Your task to perform on an android device: open app "Fetch Rewards" Image 0: 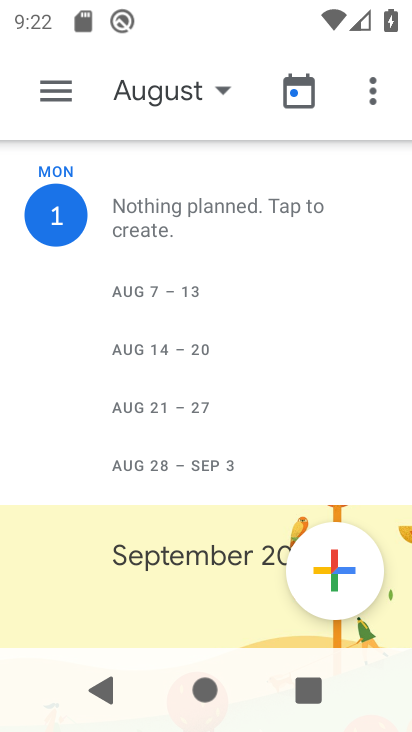
Step 0: press home button
Your task to perform on an android device: open app "Fetch Rewards" Image 1: 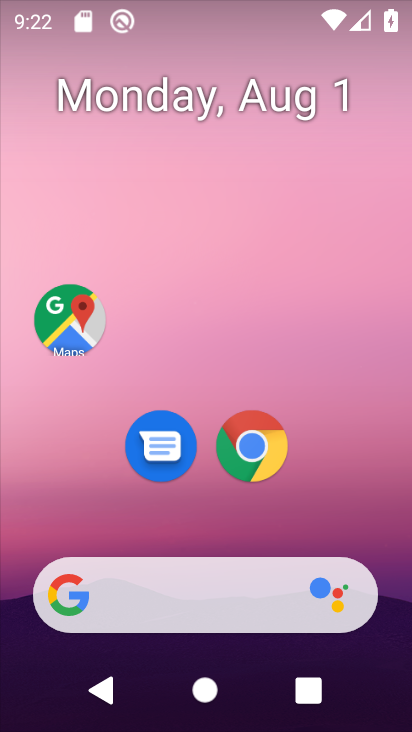
Step 1: drag from (230, 518) to (238, 105)
Your task to perform on an android device: open app "Fetch Rewards" Image 2: 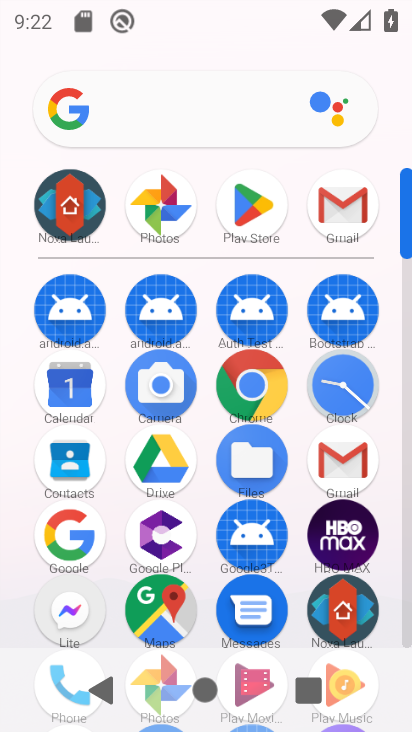
Step 2: click (267, 205)
Your task to perform on an android device: open app "Fetch Rewards" Image 3: 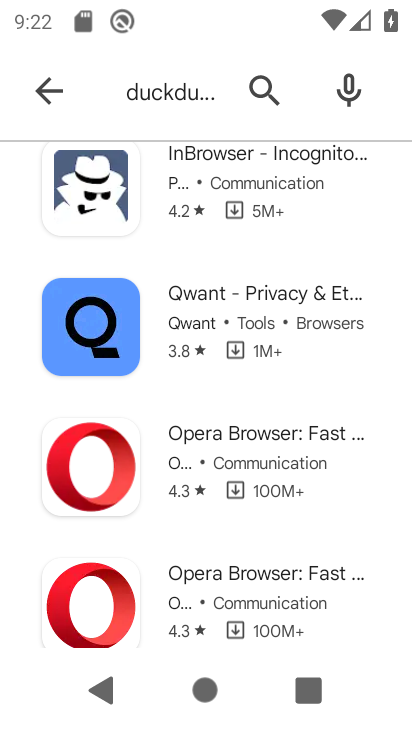
Step 3: click (273, 74)
Your task to perform on an android device: open app "Fetch Rewards" Image 4: 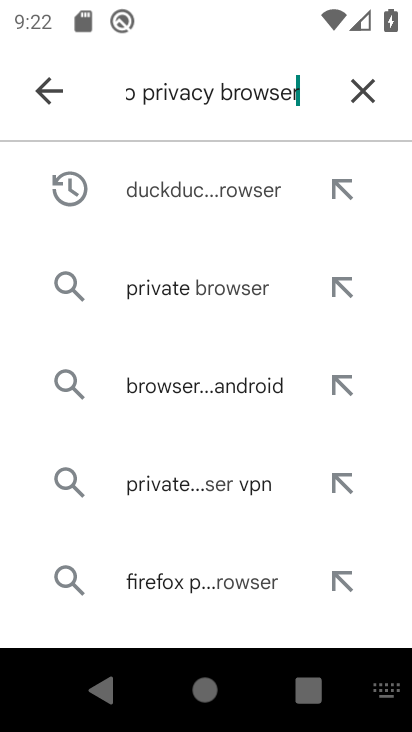
Step 4: type "Fetch Rewards"
Your task to perform on an android device: open app "Fetch Rewards" Image 5: 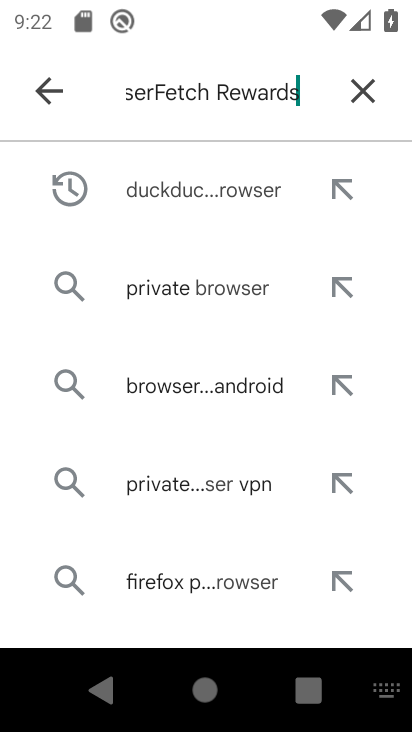
Step 5: type ""
Your task to perform on an android device: open app "Fetch Rewards" Image 6: 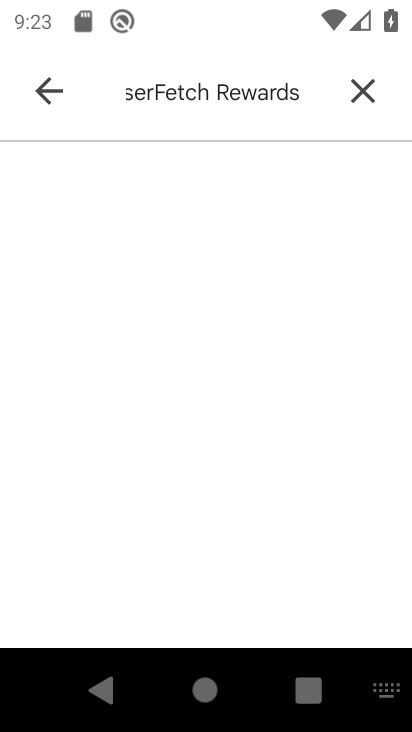
Step 6: click (362, 94)
Your task to perform on an android device: open app "Fetch Rewards" Image 7: 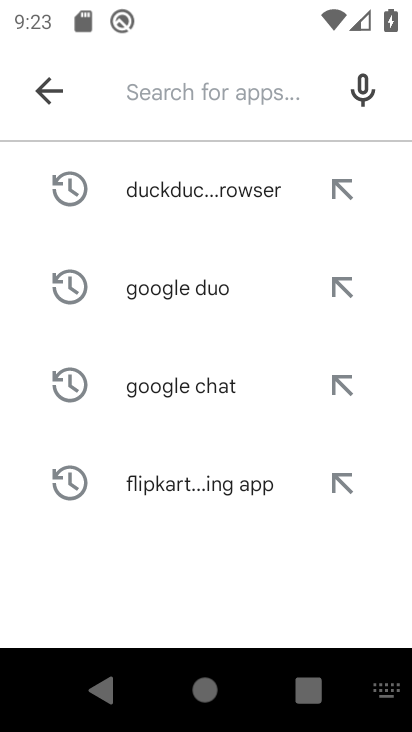
Step 7: type "Fetch Rewards""
Your task to perform on an android device: open app "Fetch Rewards" Image 8: 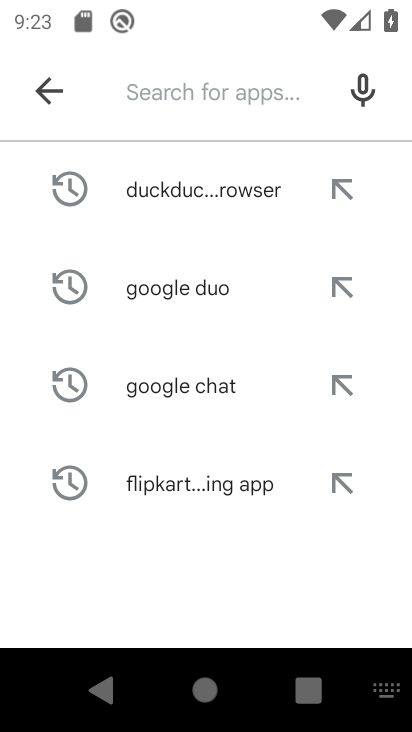
Step 8: type ""
Your task to perform on an android device: open app "Fetch Rewards" Image 9: 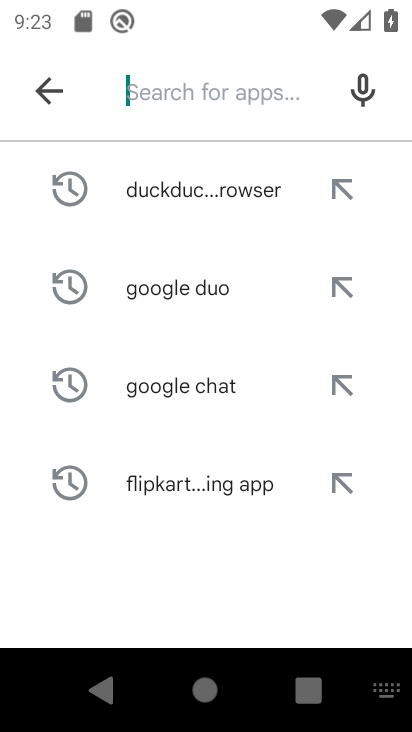
Step 9: type "Fetch Rewards"
Your task to perform on an android device: open app "Fetch Rewards" Image 10: 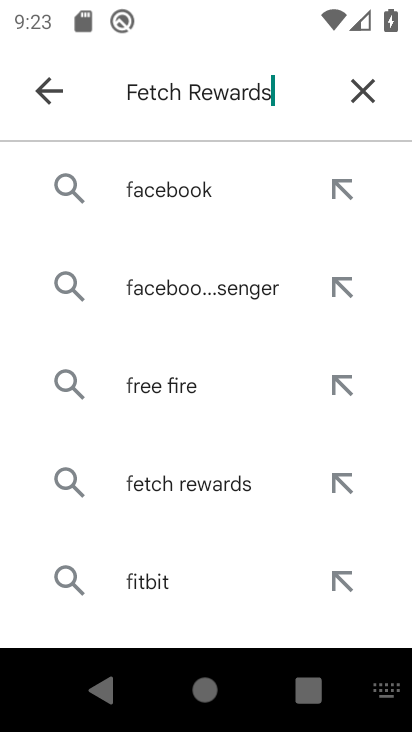
Step 10: type ""
Your task to perform on an android device: open app "Fetch Rewards" Image 11: 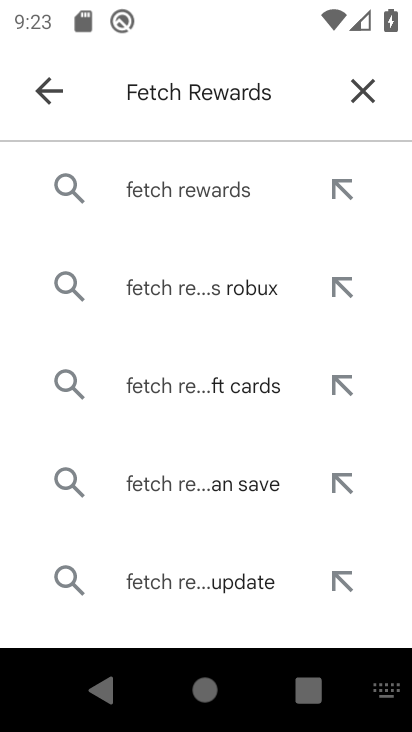
Step 11: click (194, 178)
Your task to perform on an android device: open app "Fetch Rewards" Image 12: 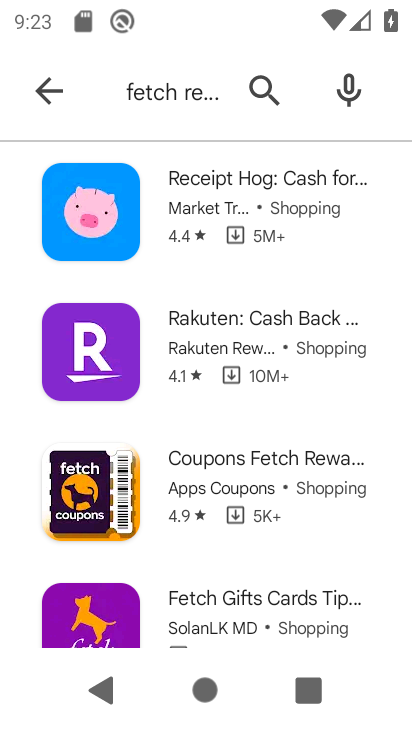
Step 12: task complete